Your task to perform on an android device: install app "DoorDash - Food Delivery" Image 0: 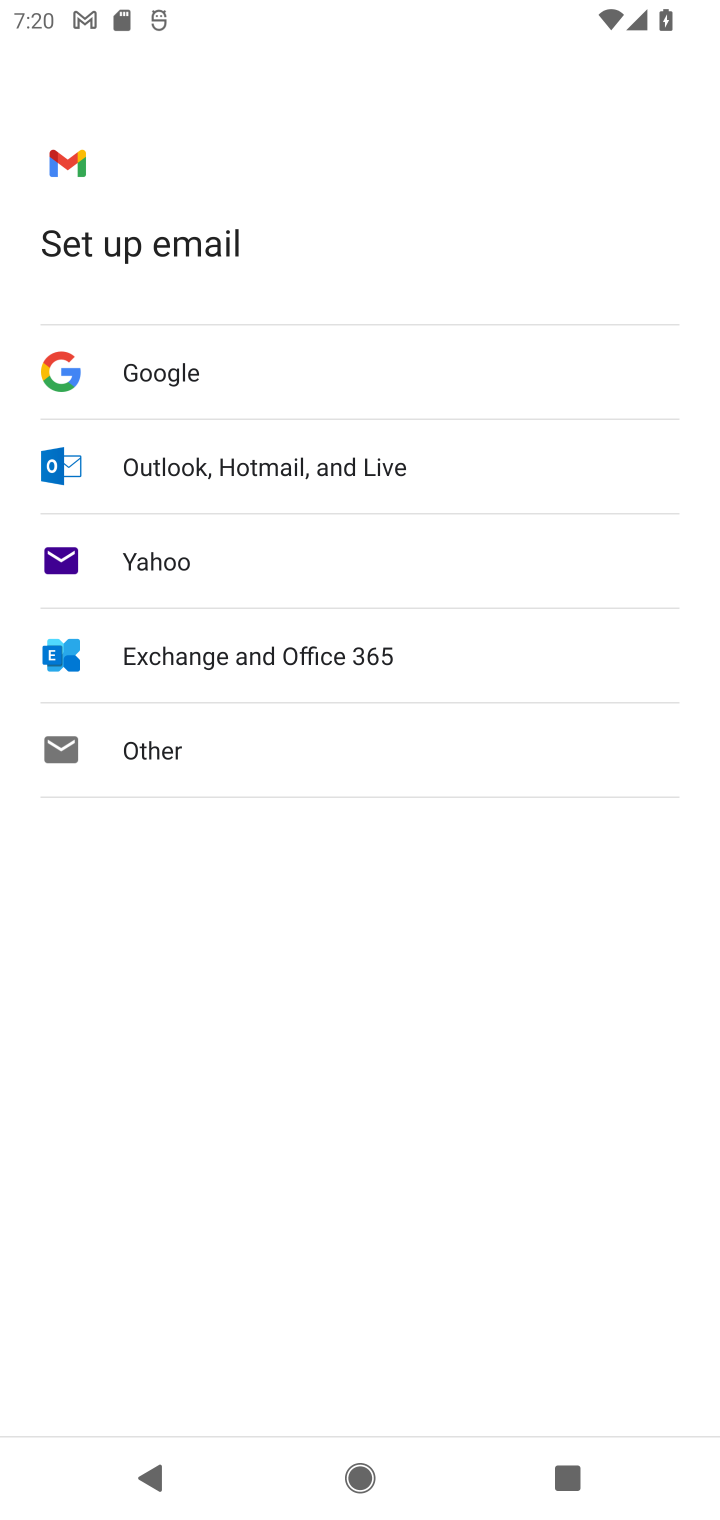
Step 0: press home button
Your task to perform on an android device: install app "DoorDash - Food Delivery" Image 1: 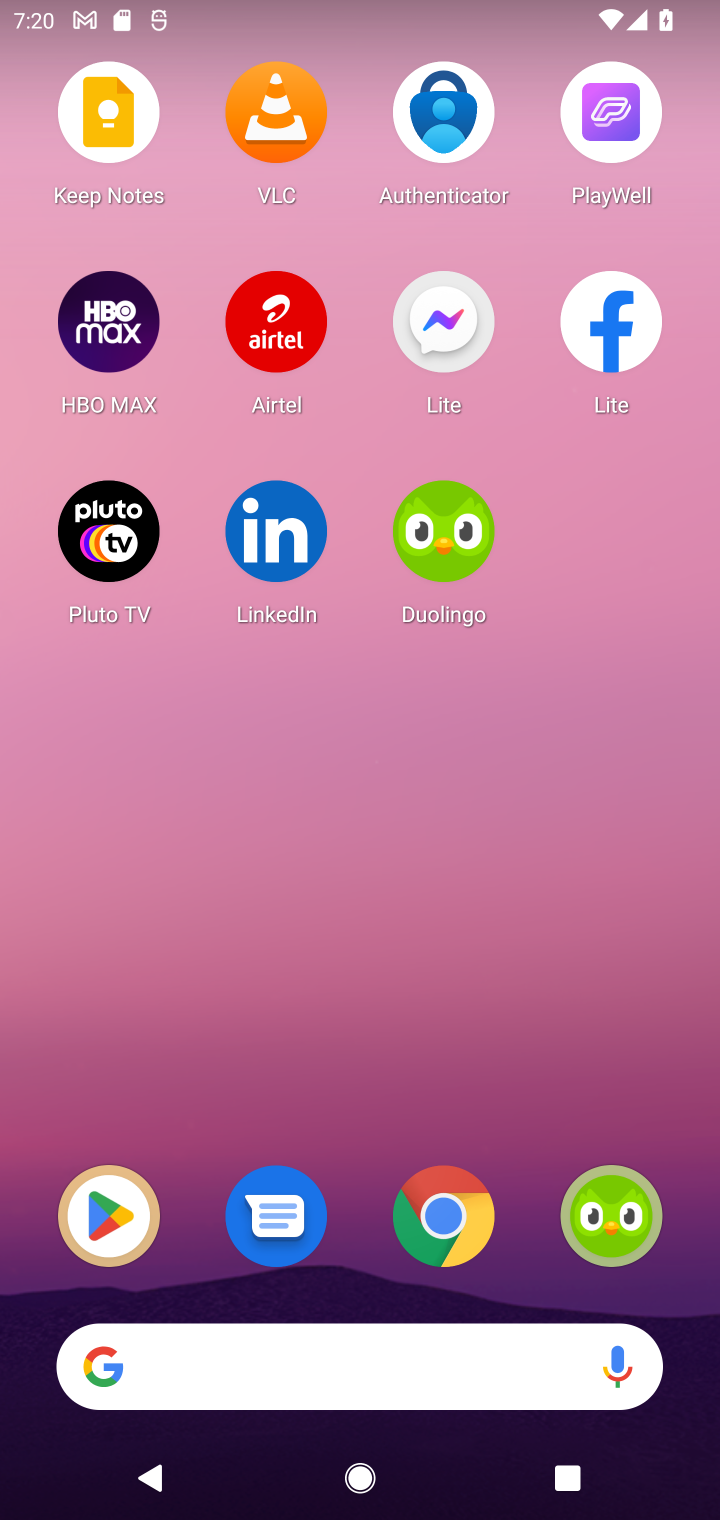
Step 1: press home button
Your task to perform on an android device: install app "DoorDash - Food Delivery" Image 2: 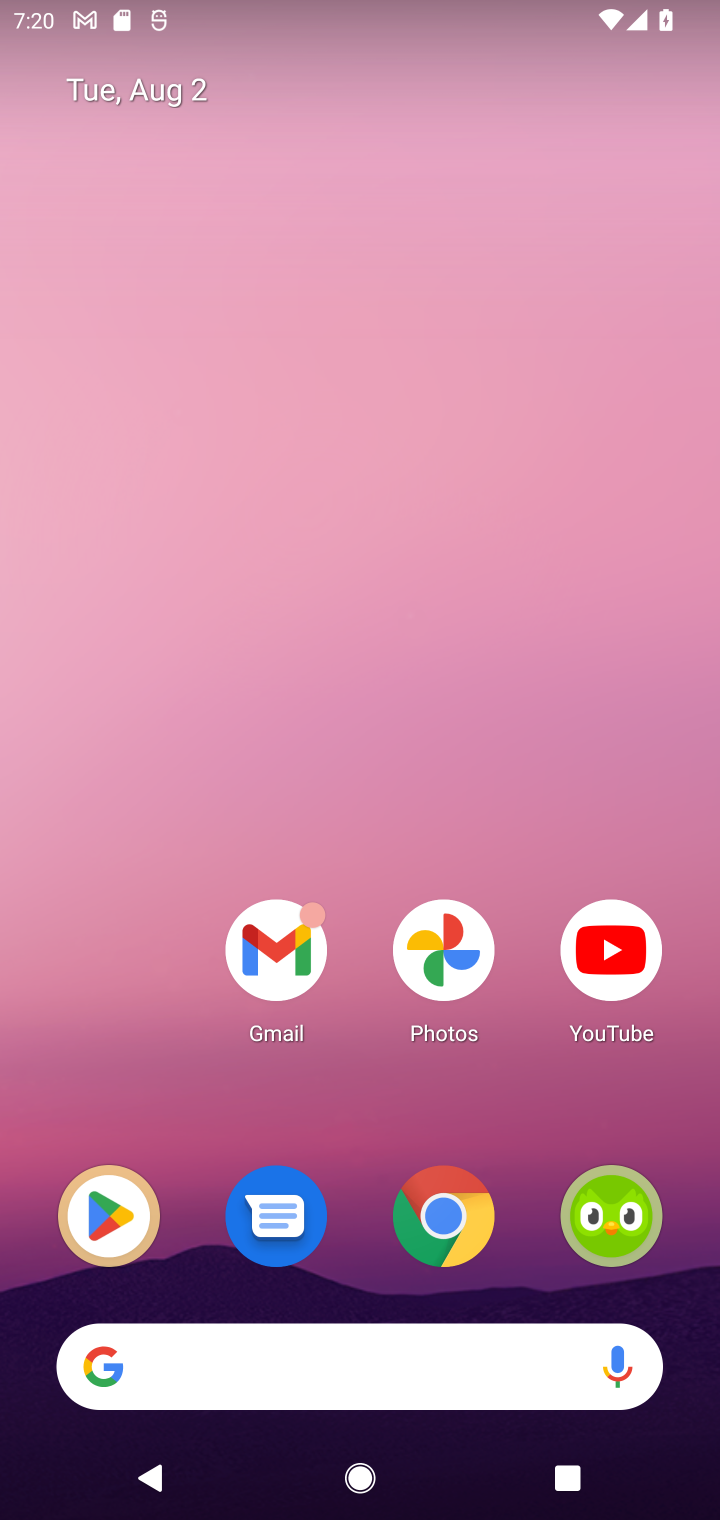
Step 2: click (103, 1214)
Your task to perform on an android device: install app "DoorDash - Food Delivery" Image 3: 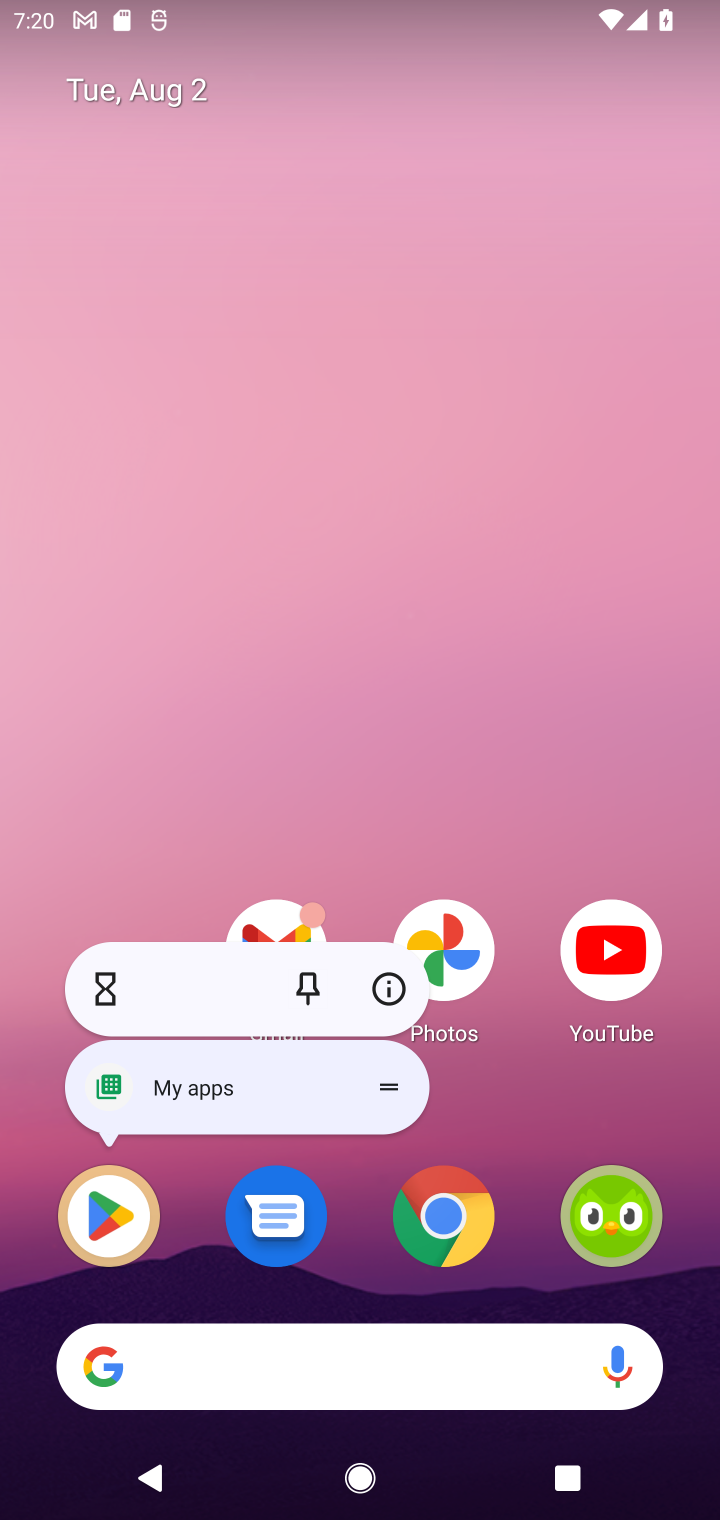
Step 3: click (103, 1216)
Your task to perform on an android device: install app "DoorDash - Food Delivery" Image 4: 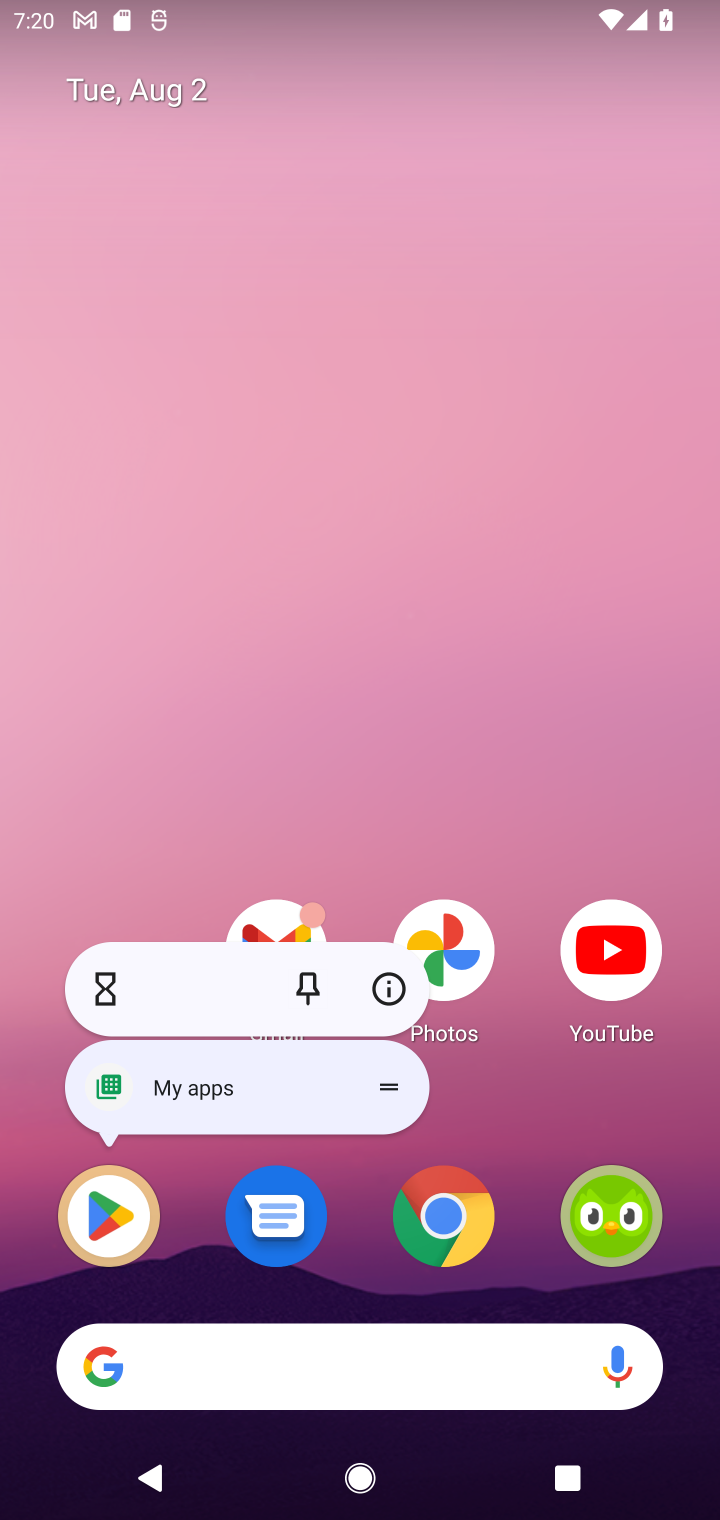
Step 4: click (103, 1216)
Your task to perform on an android device: install app "DoorDash - Food Delivery" Image 5: 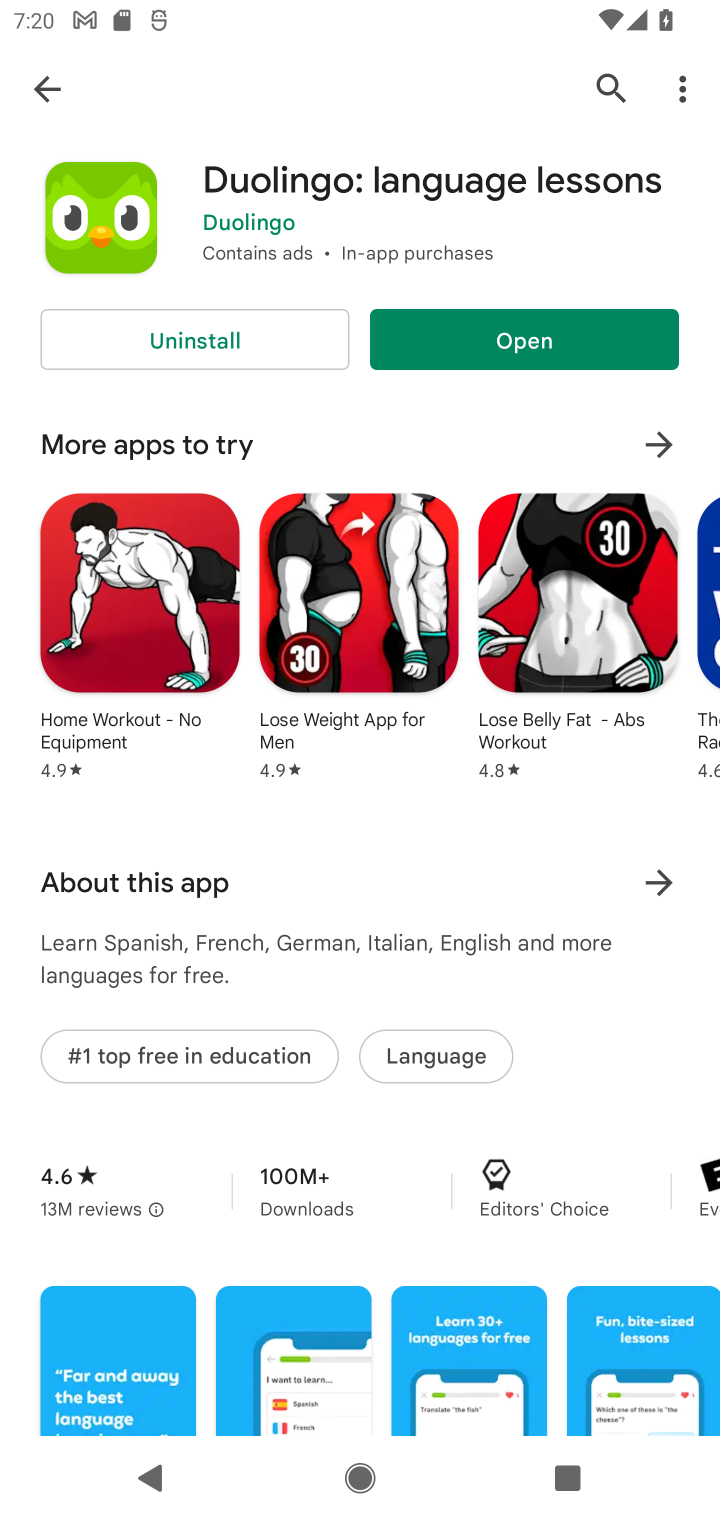
Step 5: click (610, 83)
Your task to perform on an android device: install app "DoorDash - Food Delivery" Image 6: 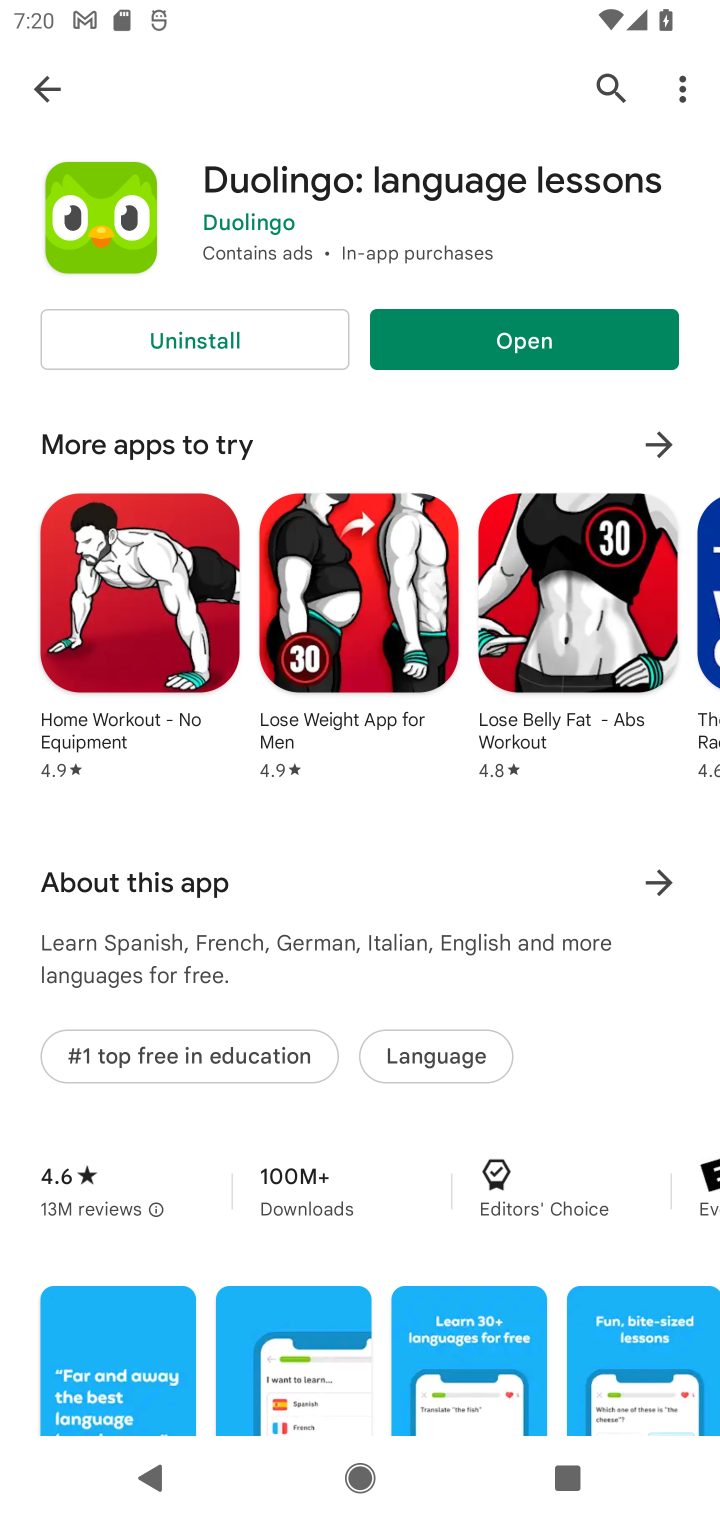
Step 6: click (612, 80)
Your task to perform on an android device: install app "DoorDash - Food Delivery" Image 7: 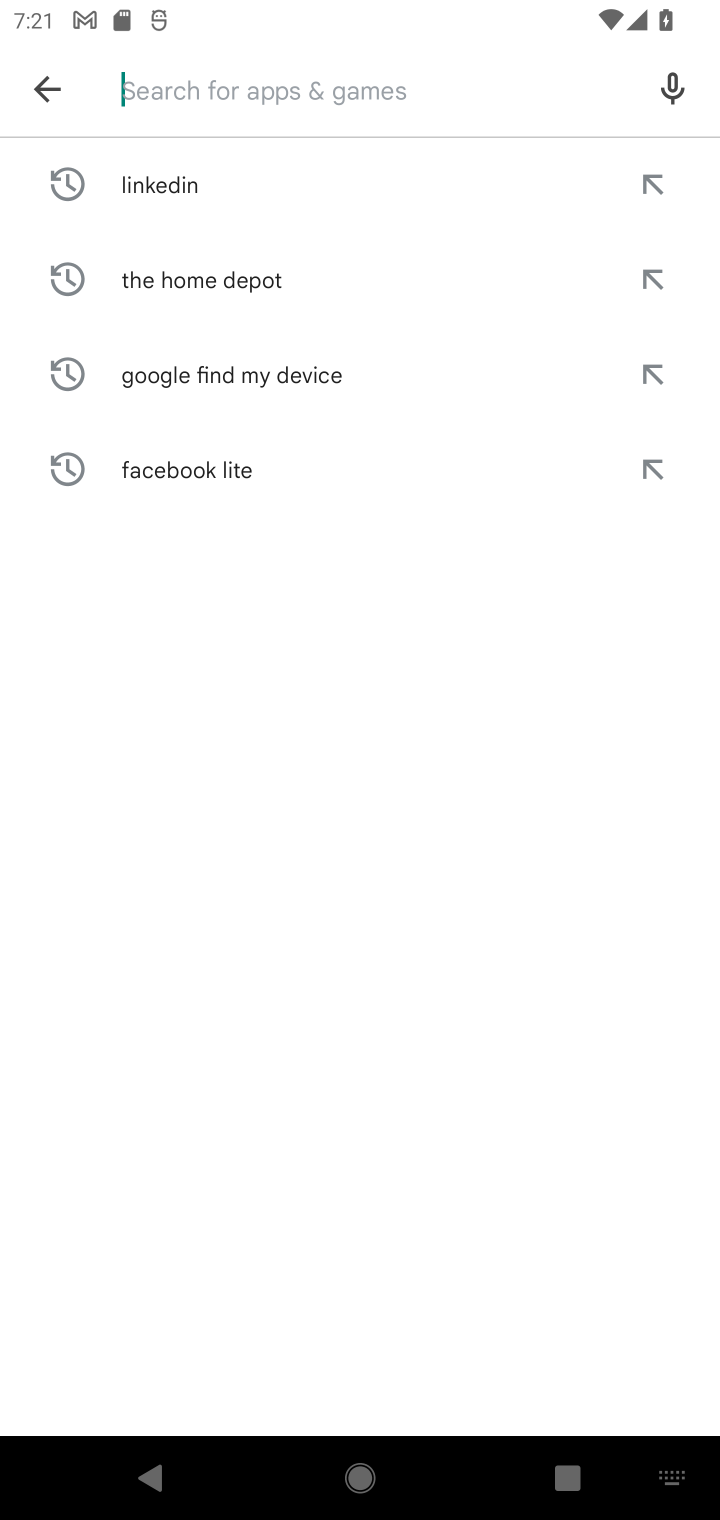
Step 7: type "DoorDash - Food Delivery"
Your task to perform on an android device: install app "DoorDash - Food Delivery" Image 8: 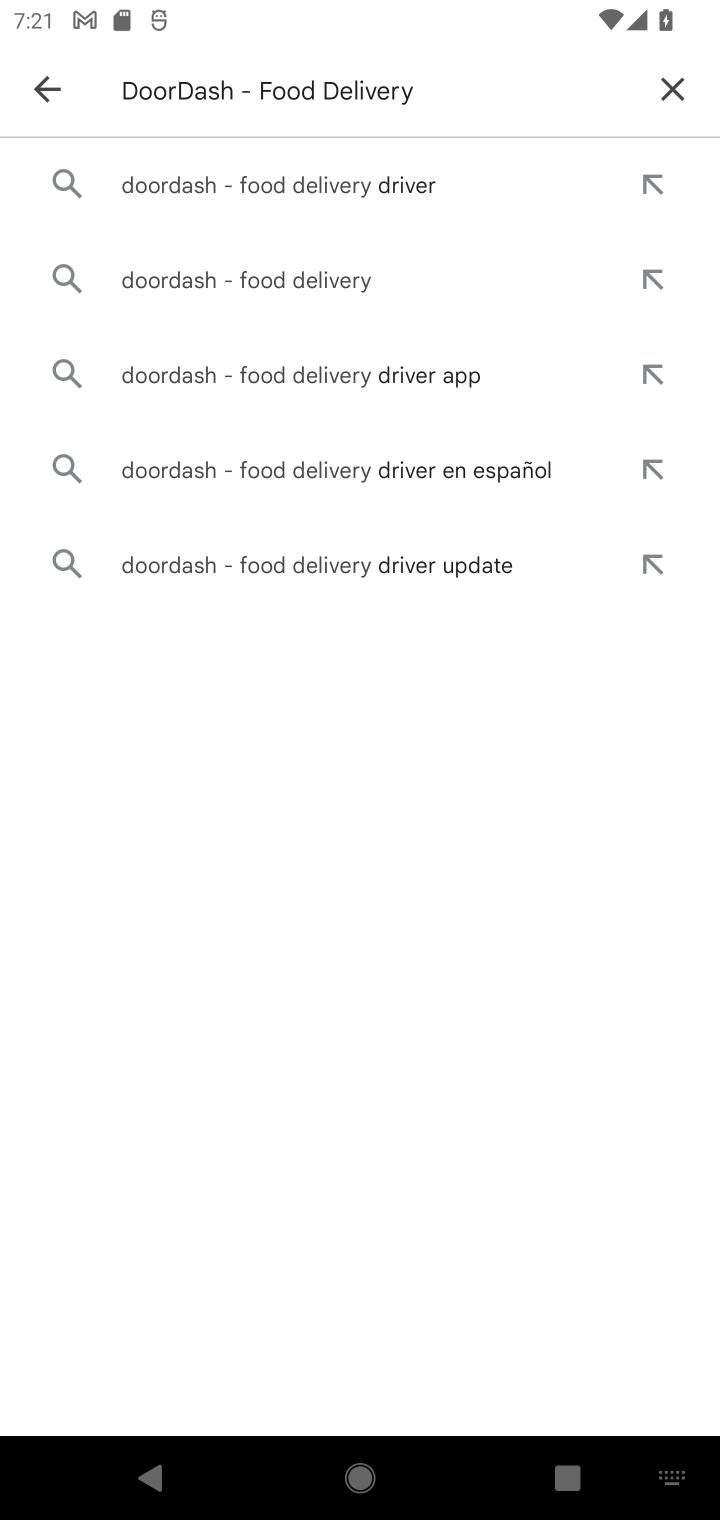
Step 8: click (253, 189)
Your task to perform on an android device: install app "DoorDash - Food Delivery" Image 9: 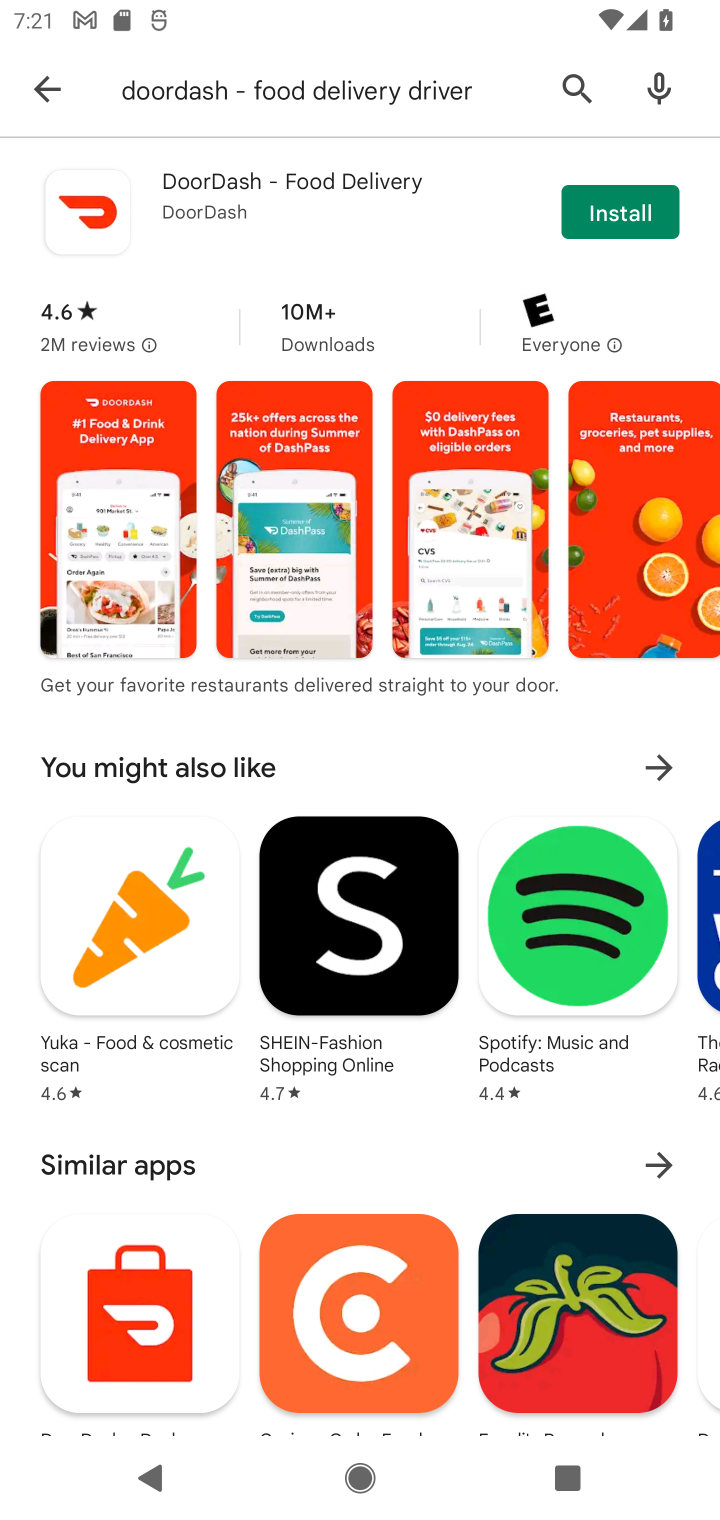
Step 9: click (593, 208)
Your task to perform on an android device: install app "DoorDash - Food Delivery" Image 10: 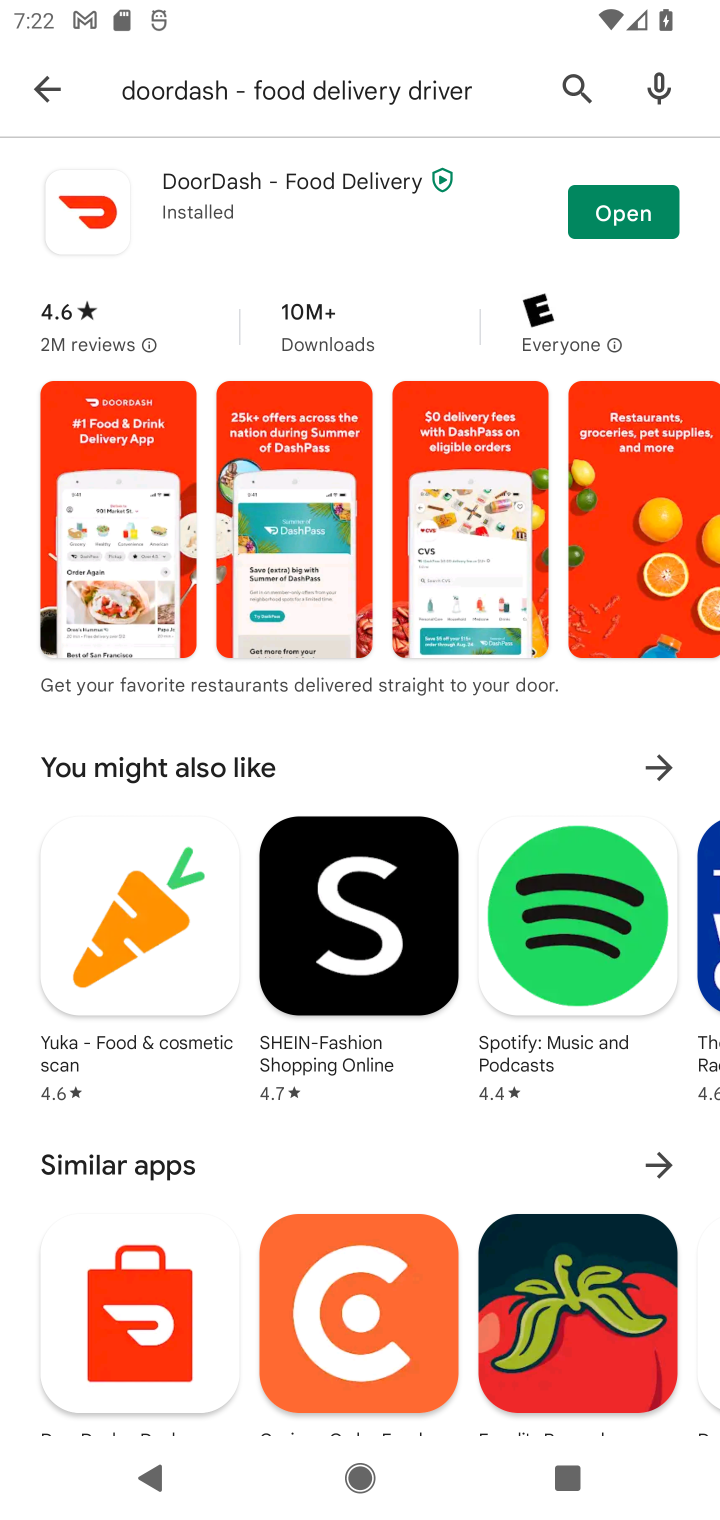
Step 10: task complete